Your task to perform on an android device: show emergency info Image 0: 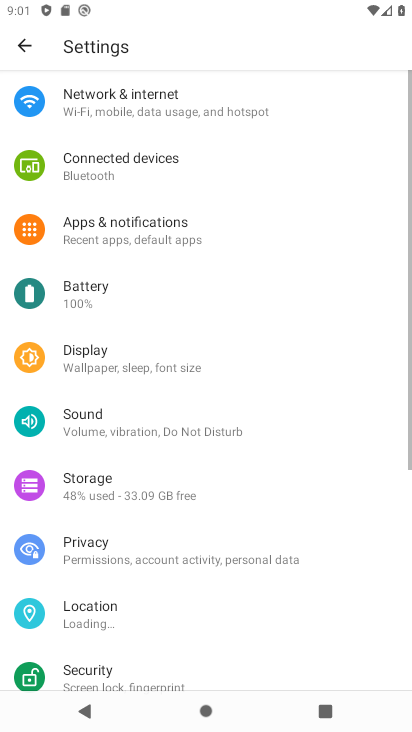
Step 0: drag from (146, 649) to (255, 223)
Your task to perform on an android device: show emergency info Image 1: 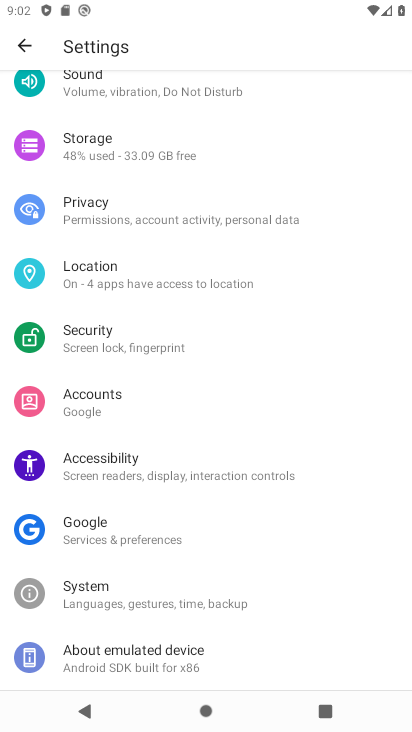
Step 1: click (208, 652)
Your task to perform on an android device: show emergency info Image 2: 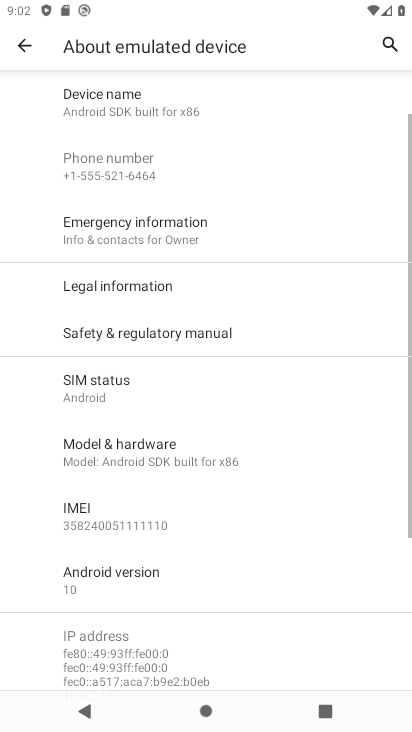
Step 2: click (224, 228)
Your task to perform on an android device: show emergency info Image 3: 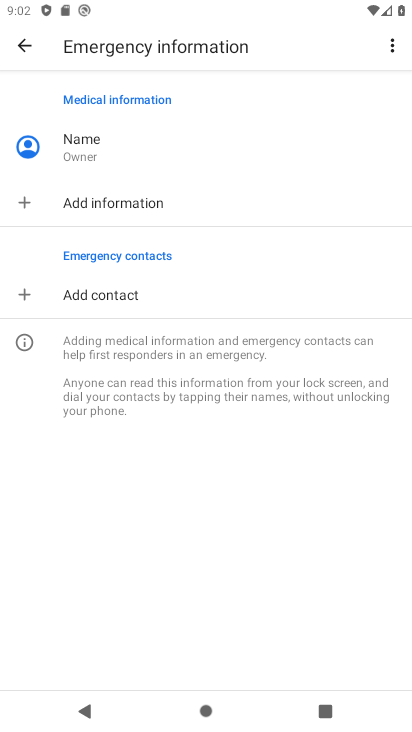
Step 3: task complete